Your task to perform on an android device: Go to notification settings Image 0: 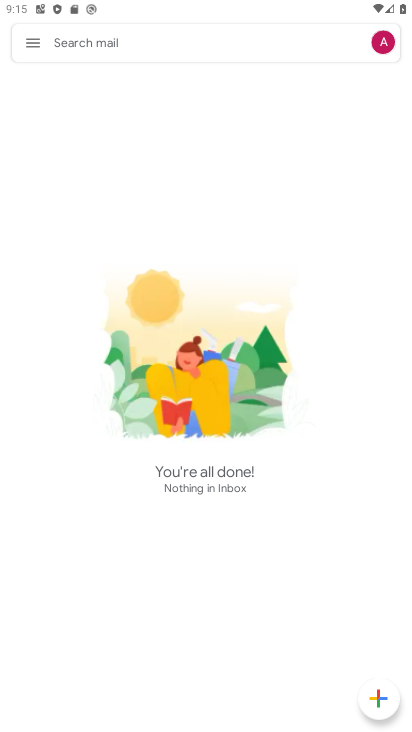
Step 0: press home button
Your task to perform on an android device: Go to notification settings Image 1: 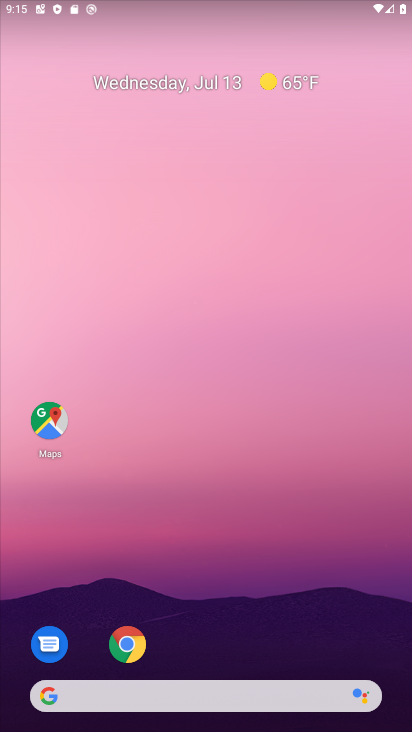
Step 1: drag from (259, 557) to (203, 0)
Your task to perform on an android device: Go to notification settings Image 2: 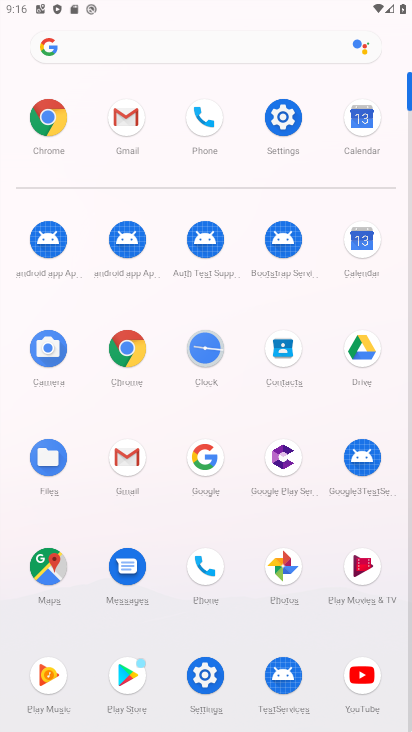
Step 2: click (273, 124)
Your task to perform on an android device: Go to notification settings Image 3: 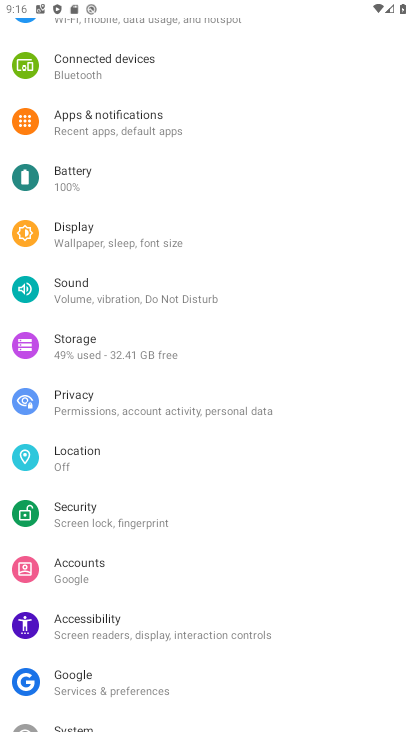
Step 3: click (141, 111)
Your task to perform on an android device: Go to notification settings Image 4: 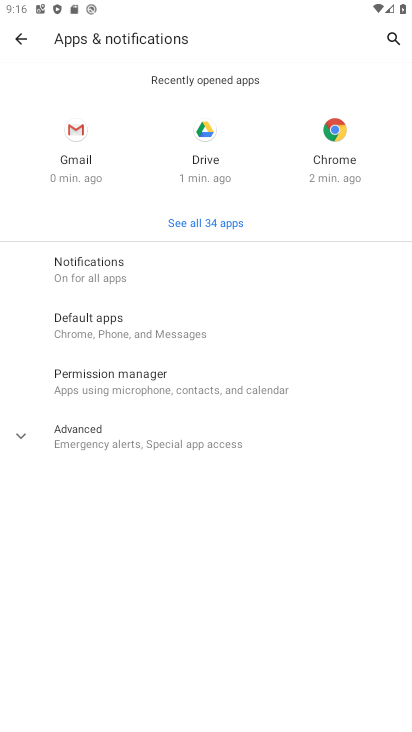
Step 4: click (88, 259)
Your task to perform on an android device: Go to notification settings Image 5: 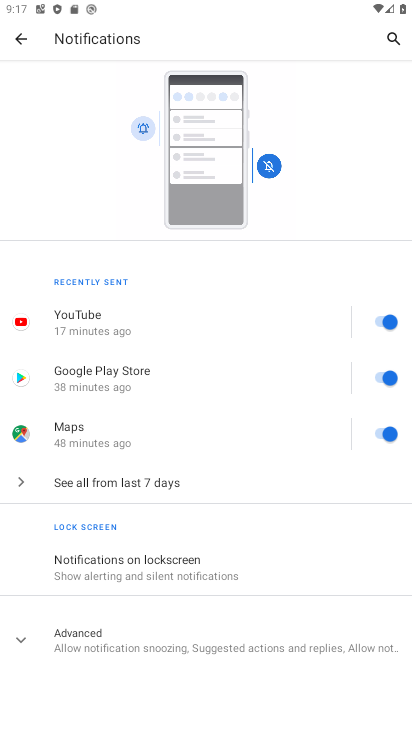
Step 5: task complete